Your task to perform on an android device: Open privacy settings Image 0: 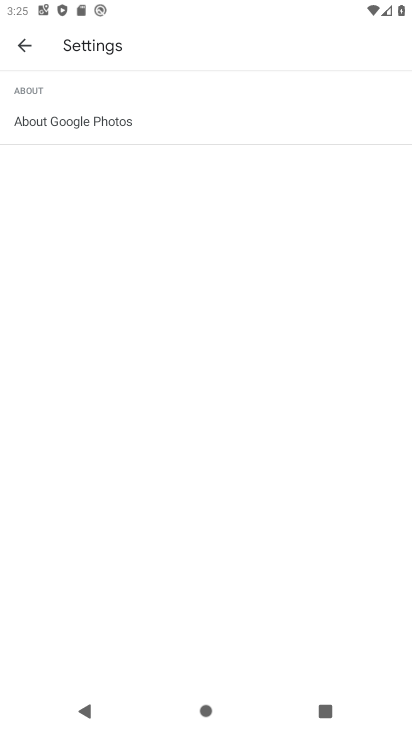
Step 0: press home button
Your task to perform on an android device: Open privacy settings Image 1: 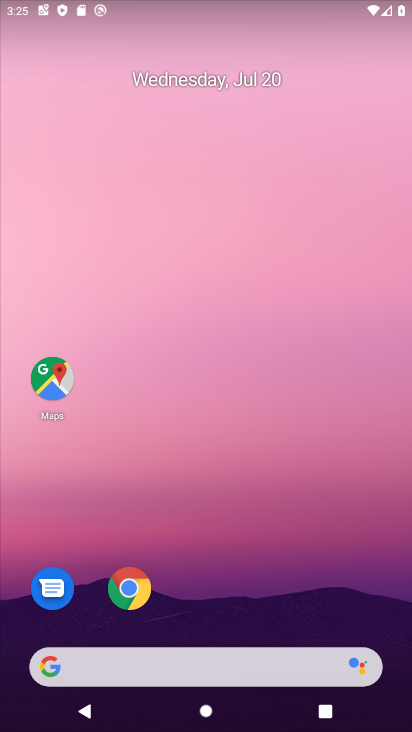
Step 1: drag from (305, 600) to (280, 102)
Your task to perform on an android device: Open privacy settings Image 2: 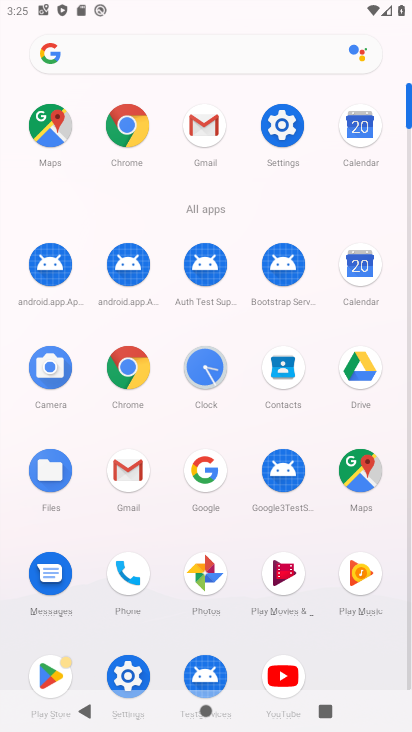
Step 2: click (269, 115)
Your task to perform on an android device: Open privacy settings Image 3: 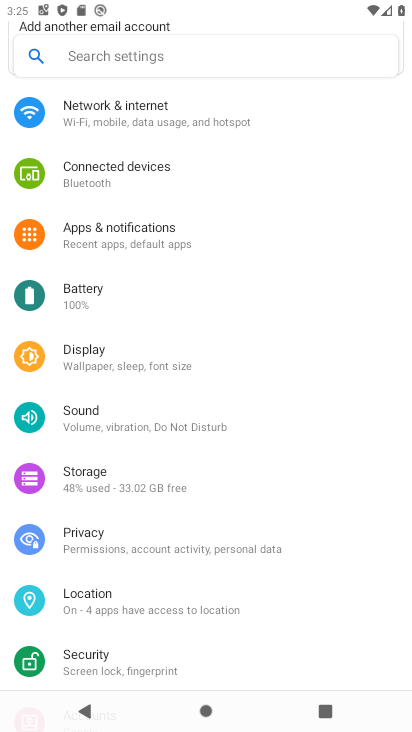
Step 3: click (90, 536)
Your task to perform on an android device: Open privacy settings Image 4: 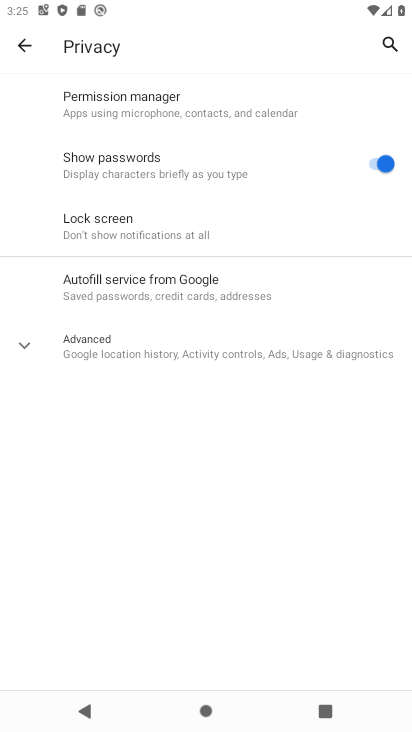
Step 4: task complete